Your task to perform on an android device: Open the Play Movies app and select the watchlist tab. Image 0: 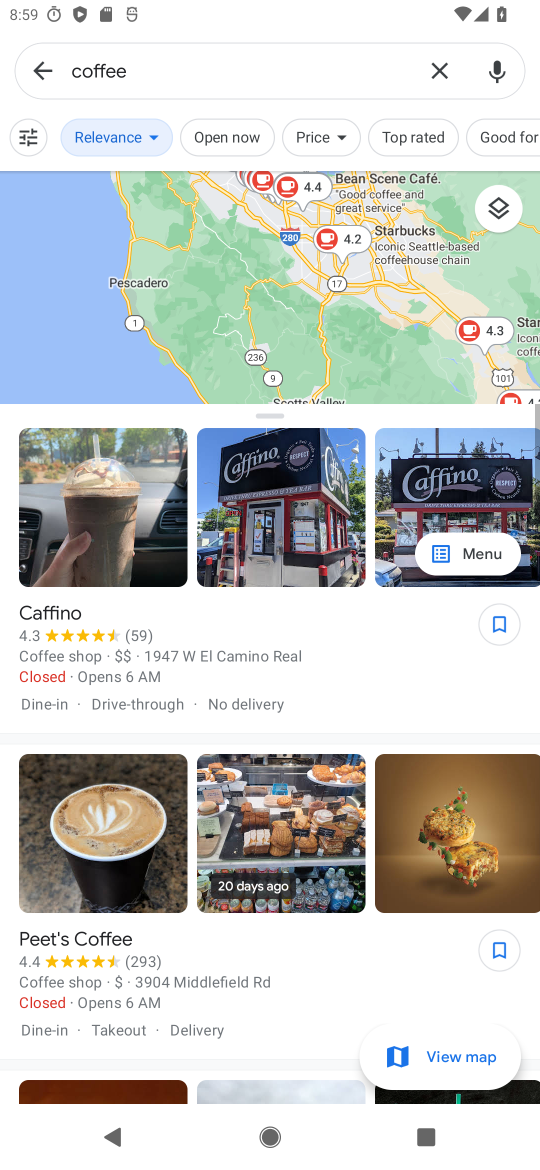
Step 0: press home button
Your task to perform on an android device: Open the Play Movies app and select the watchlist tab. Image 1: 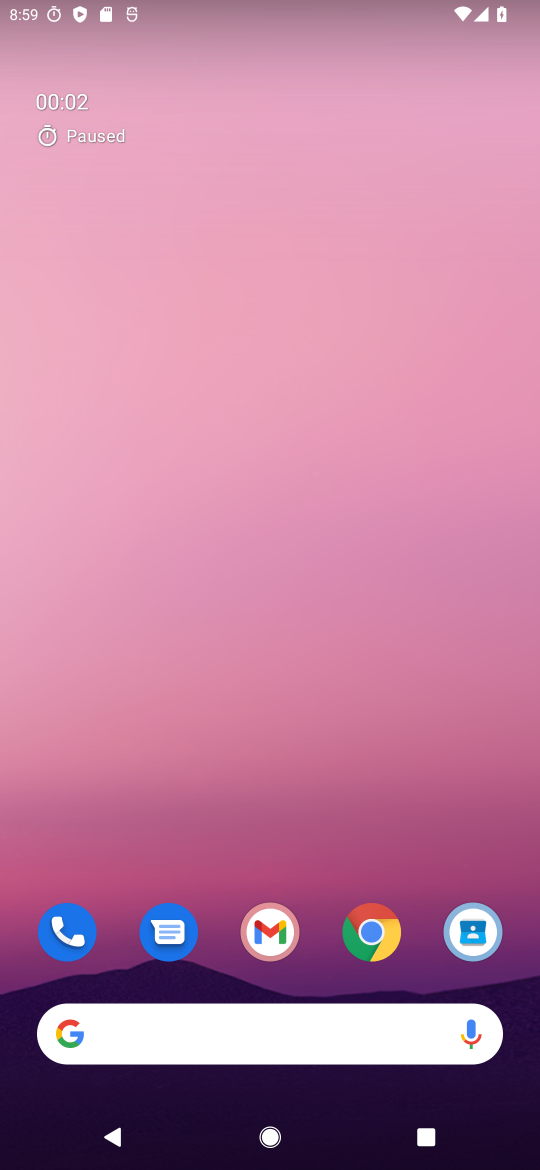
Step 1: task complete